Your task to perform on an android device: Go to CNN.com Image 0: 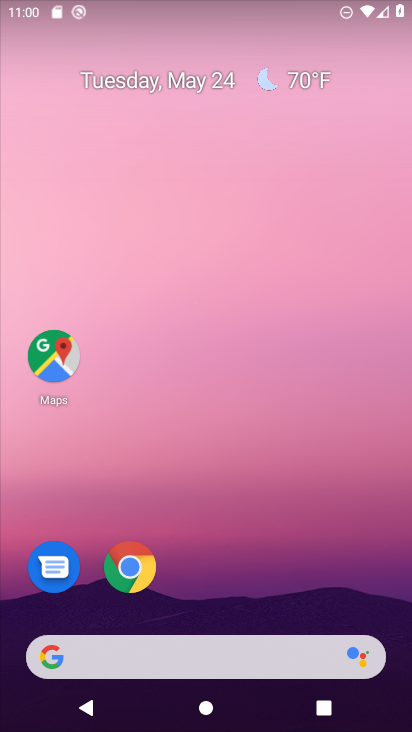
Step 0: click (109, 572)
Your task to perform on an android device: Go to CNN.com Image 1: 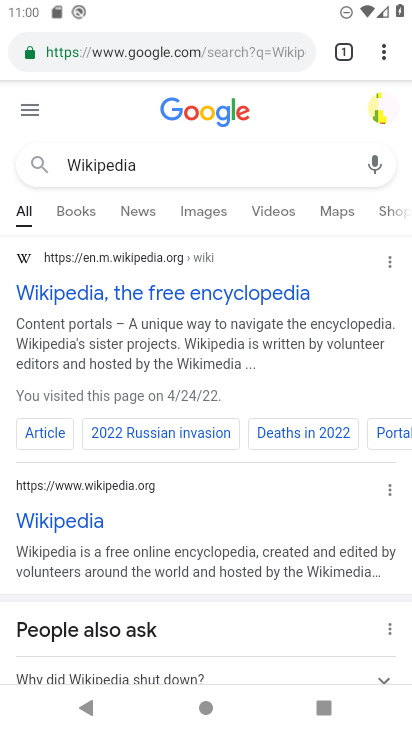
Step 1: click (303, 50)
Your task to perform on an android device: Go to CNN.com Image 2: 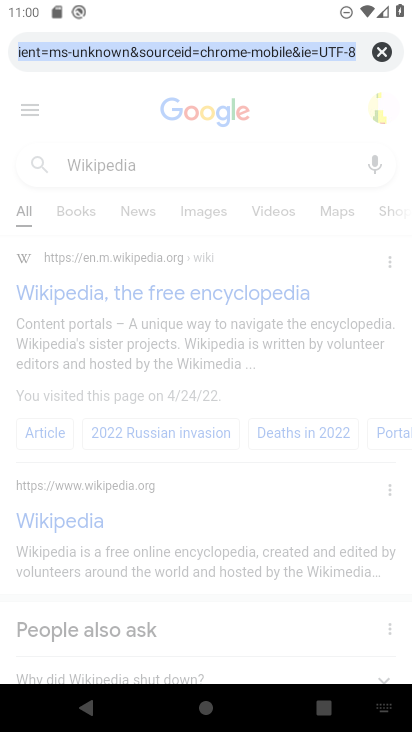
Step 2: click (380, 48)
Your task to perform on an android device: Go to CNN.com Image 3: 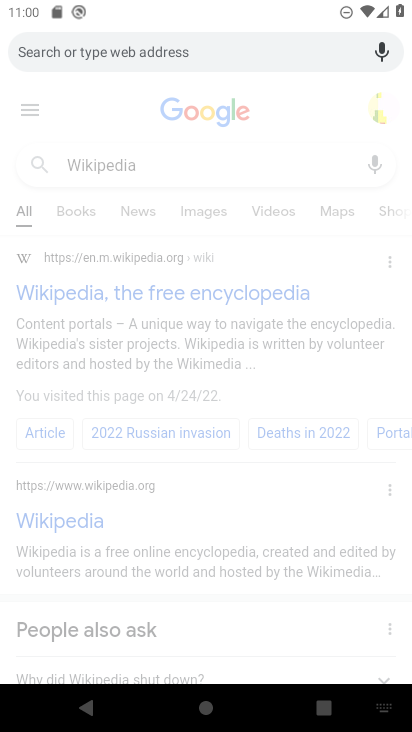
Step 3: type "CNN.com"
Your task to perform on an android device: Go to CNN.com Image 4: 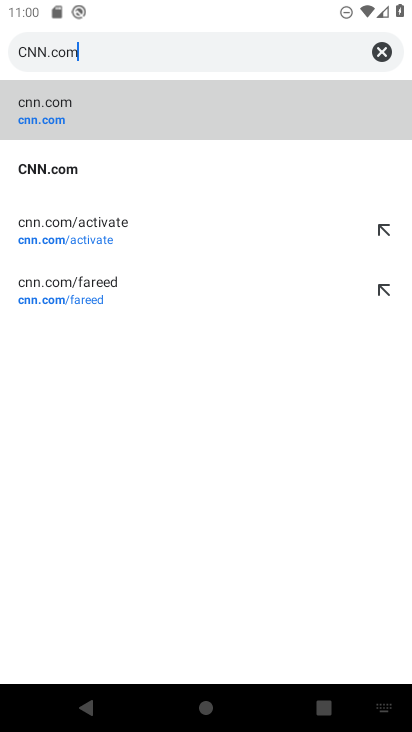
Step 4: click (64, 163)
Your task to perform on an android device: Go to CNN.com Image 5: 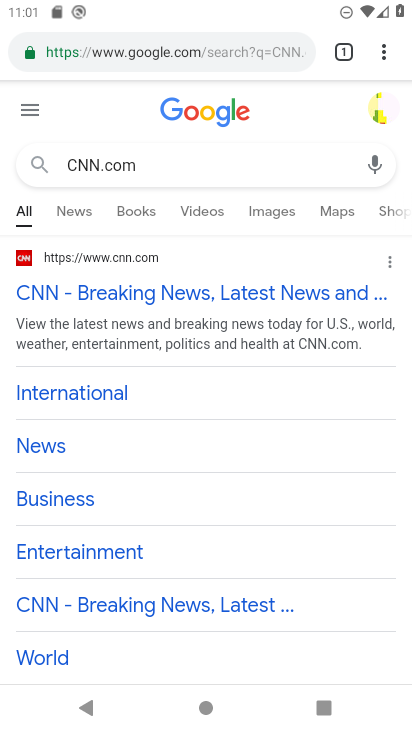
Step 5: task complete